Your task to perform on an android device: open app "Pinterest" (install if not already installed) Image 0: 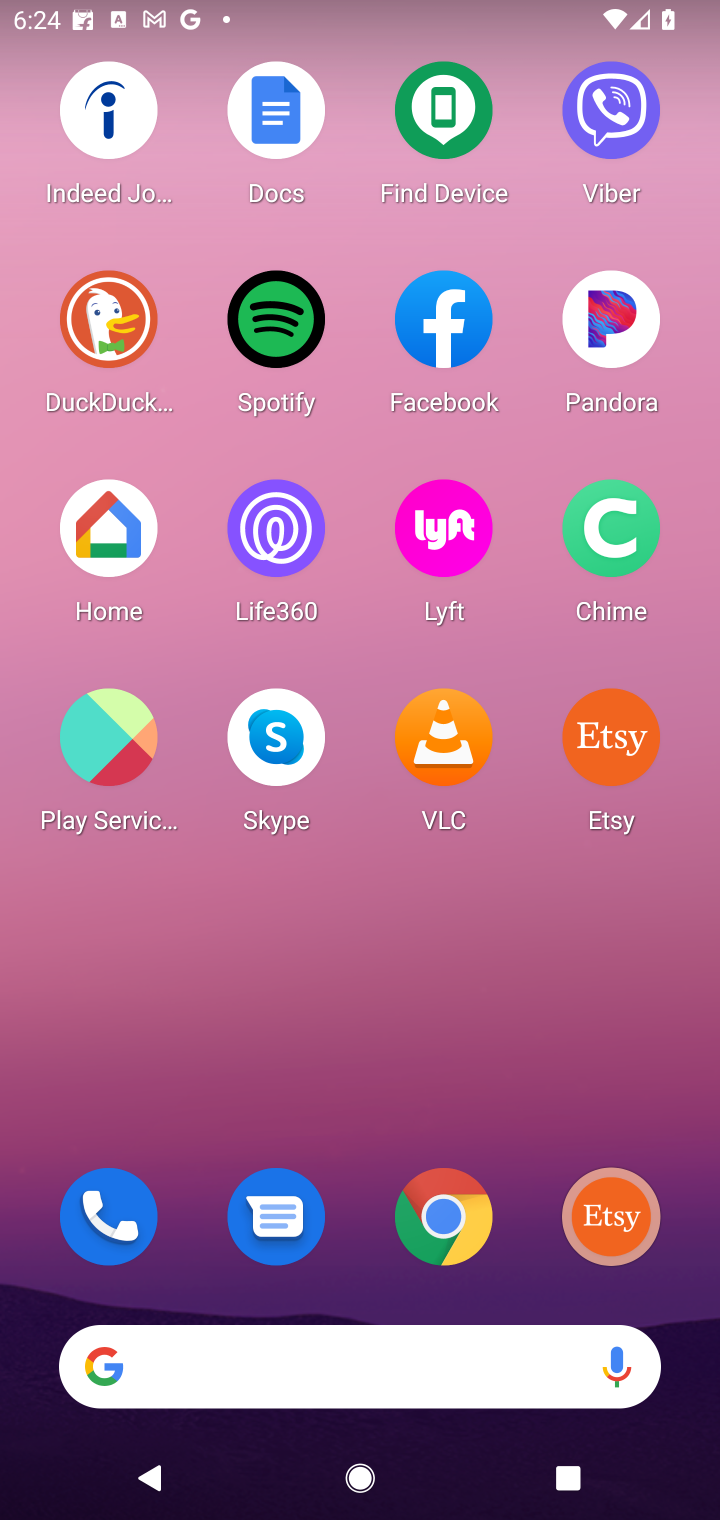
Step 0: drag from (314, 1083) to (417, 8)
Your task to perform on an android device: open app "Pinterest" (install if not already installed) Image 1: 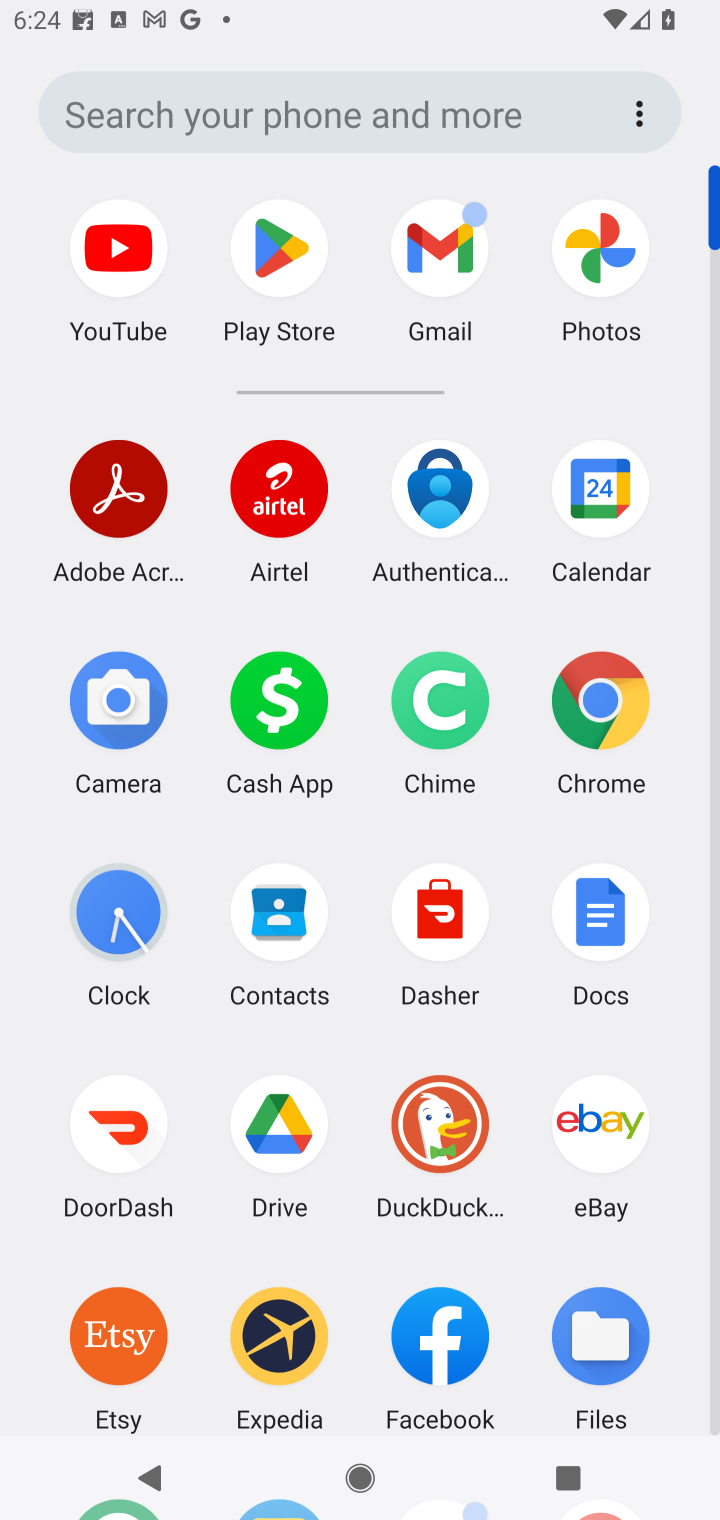
Step 1: click (289, 262)
Your task to perform on an android device: open app "Pinterest" (install if not already installed) Image 2: 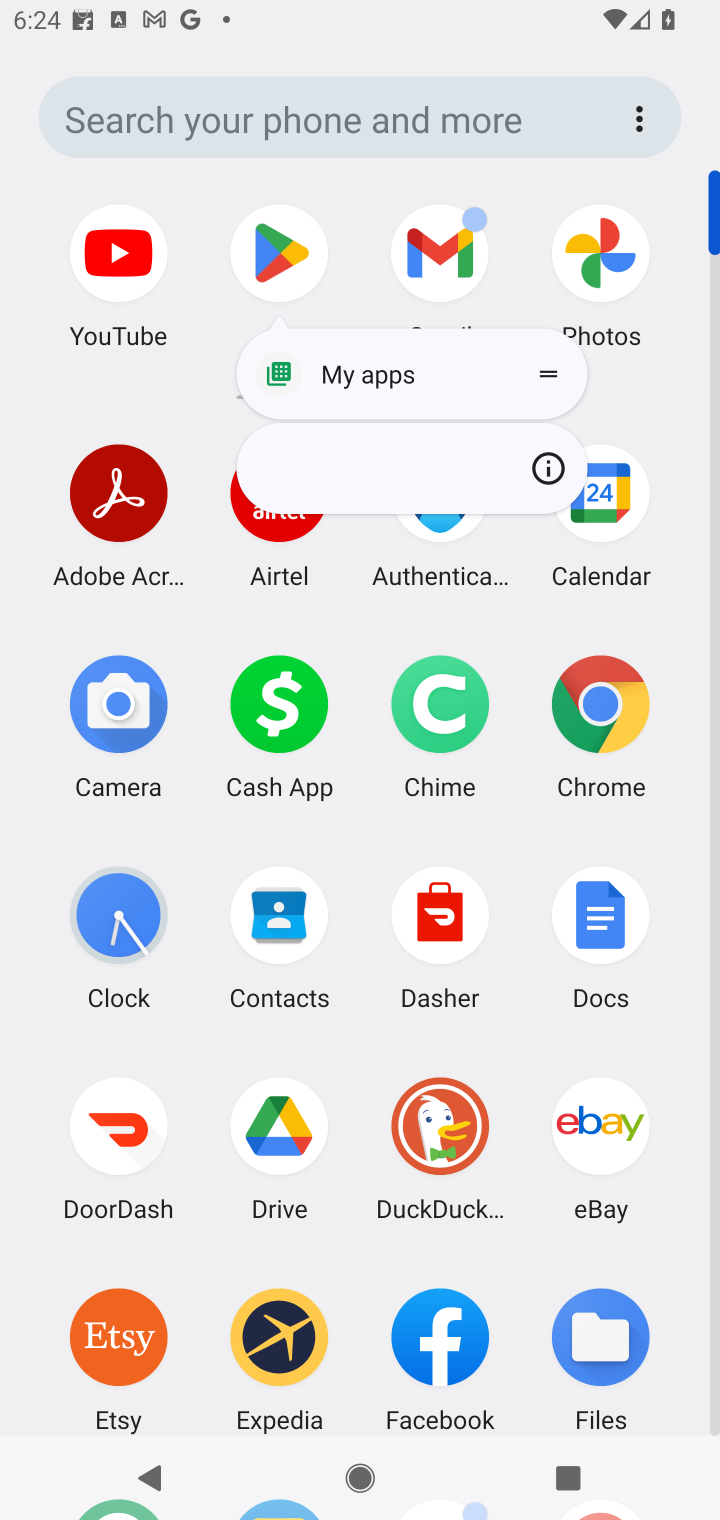
Step 2: click (272, 257)
Your task to perform on an android device: open app "Pinterest" (install if not already installed) Image 3: 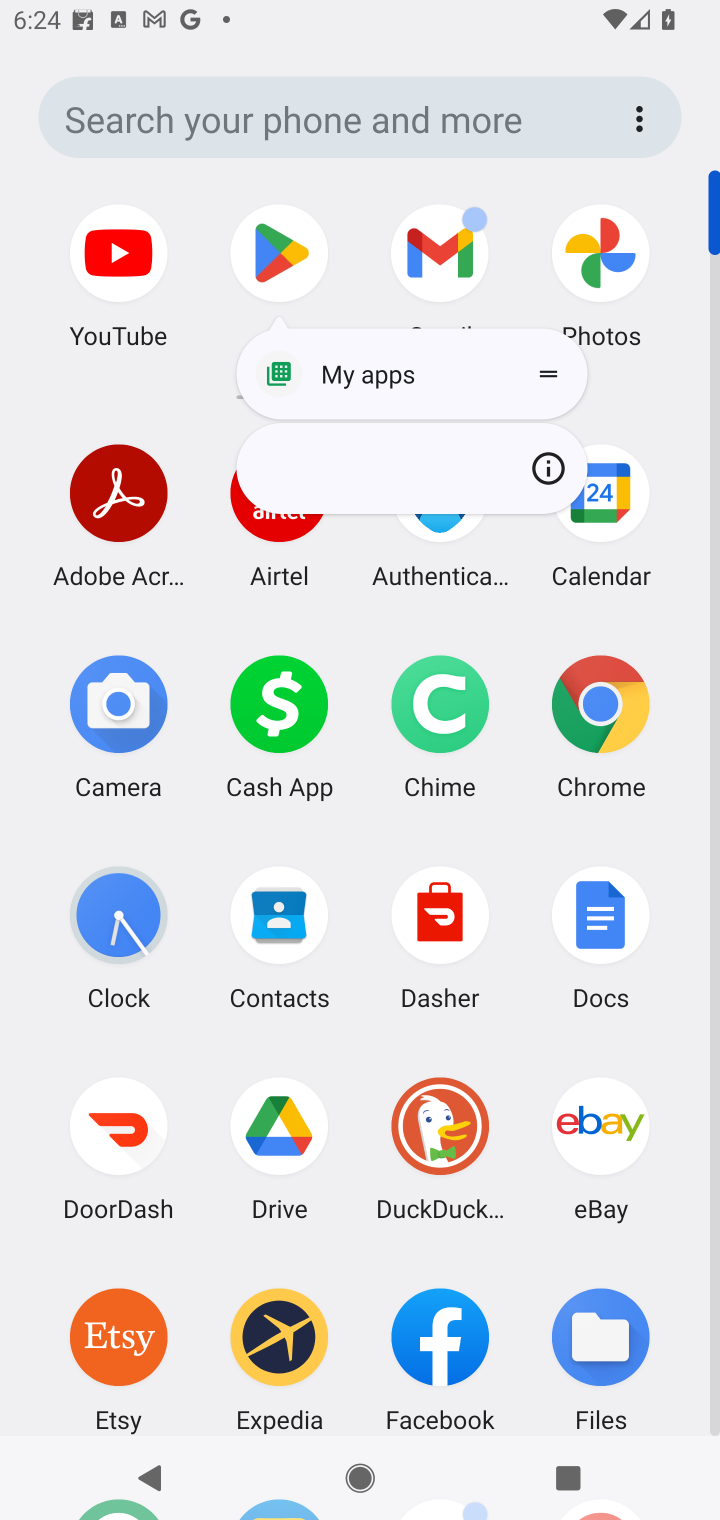
Step 3: click (297, 244)
Your task to perform on an android device: open app "Pinterest" (install if not already installed) Image 4: 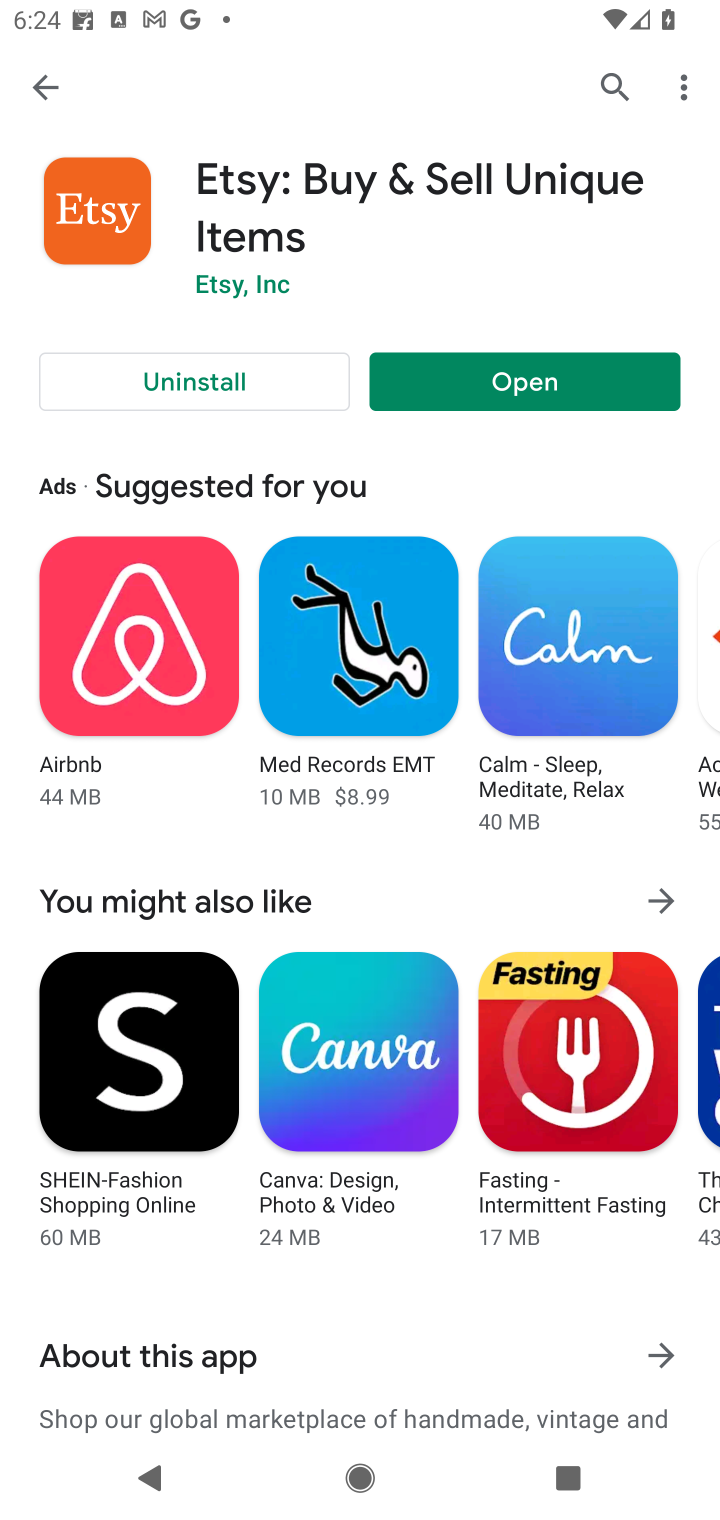
Step 4: click (593, 85)
Your task to perform on an android device: open app "Pinterest" (install if not already installed) Image 5: 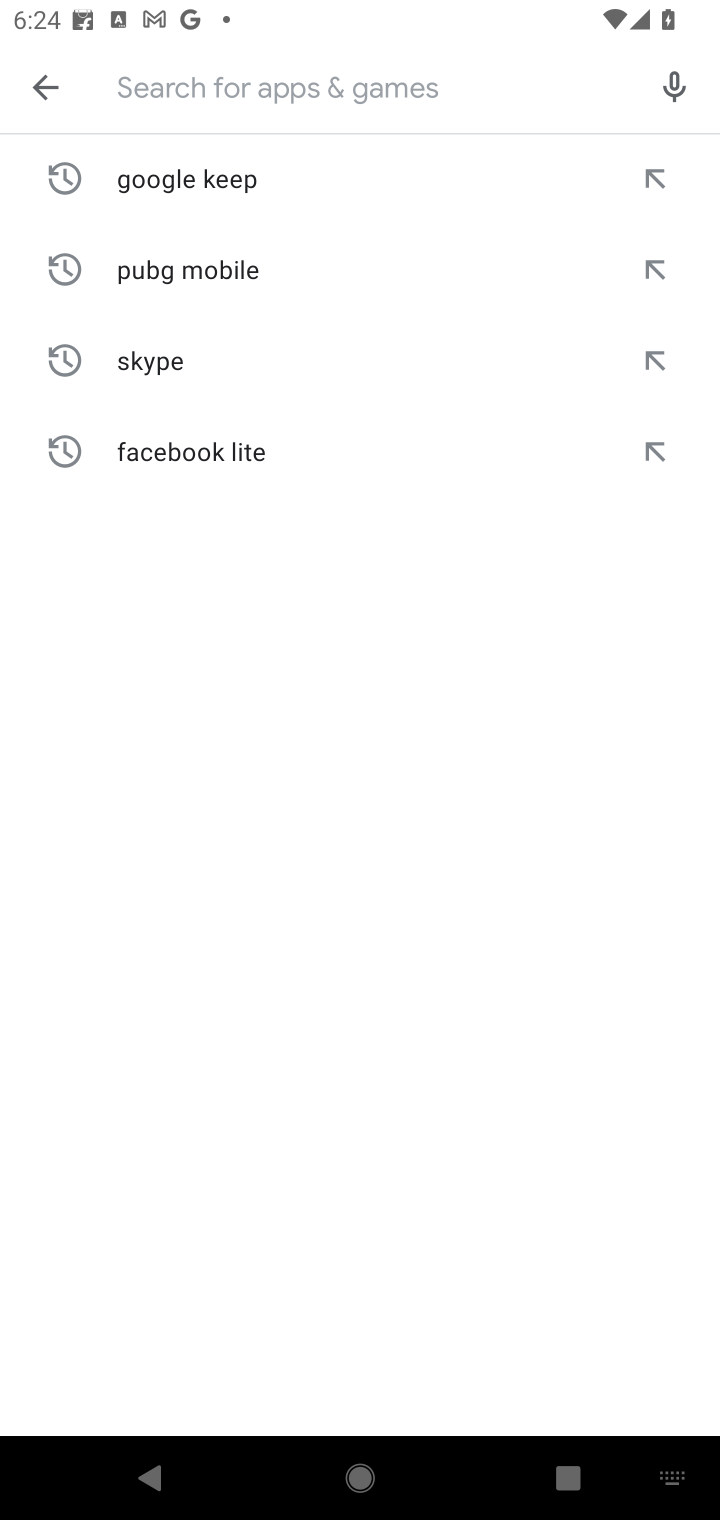
Step 5: type "Pinterest"
Your task to perform on an android device: open app "Pinterest" (install if not already installed) Image 6: 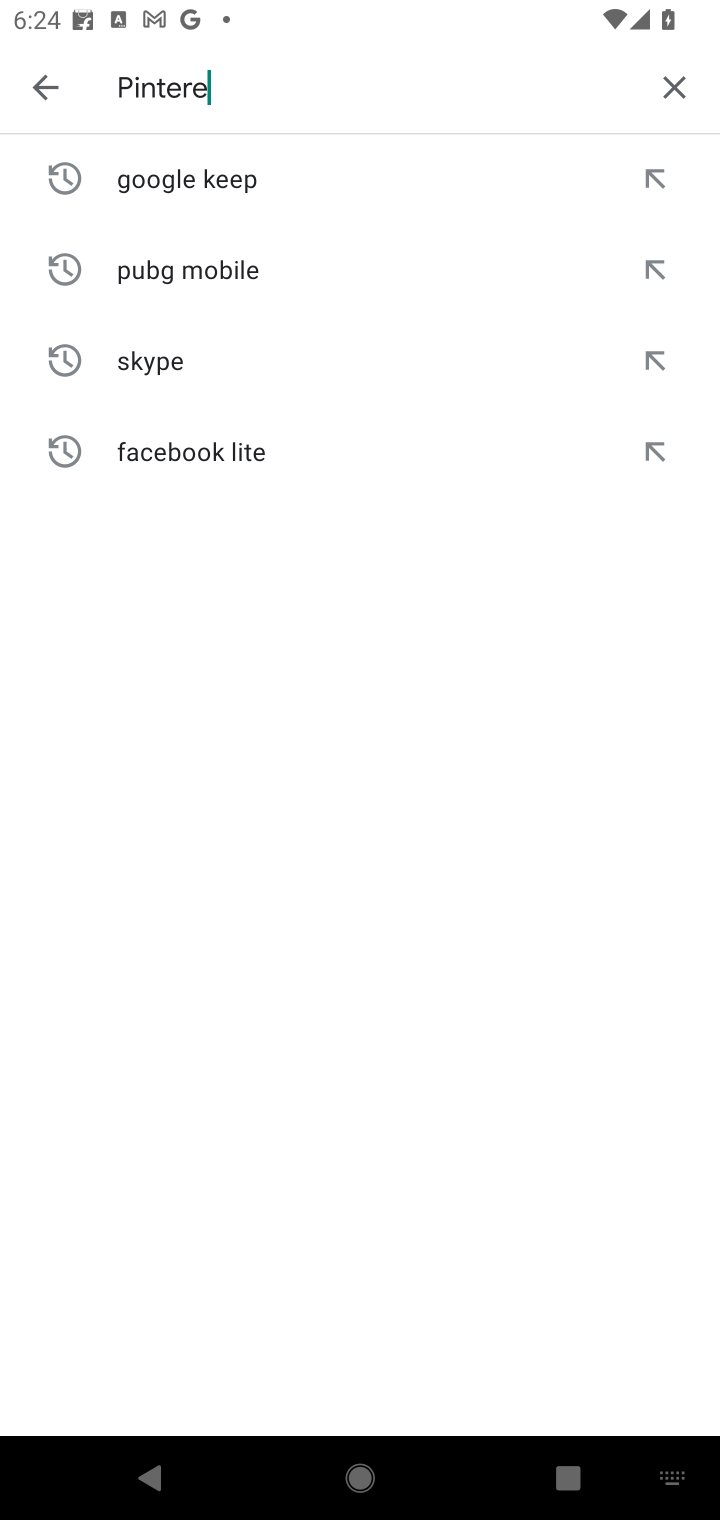
Step 6: type ""
Your task to perform on an android device: open app "Pinterest" (install if not already installed) Image 7: 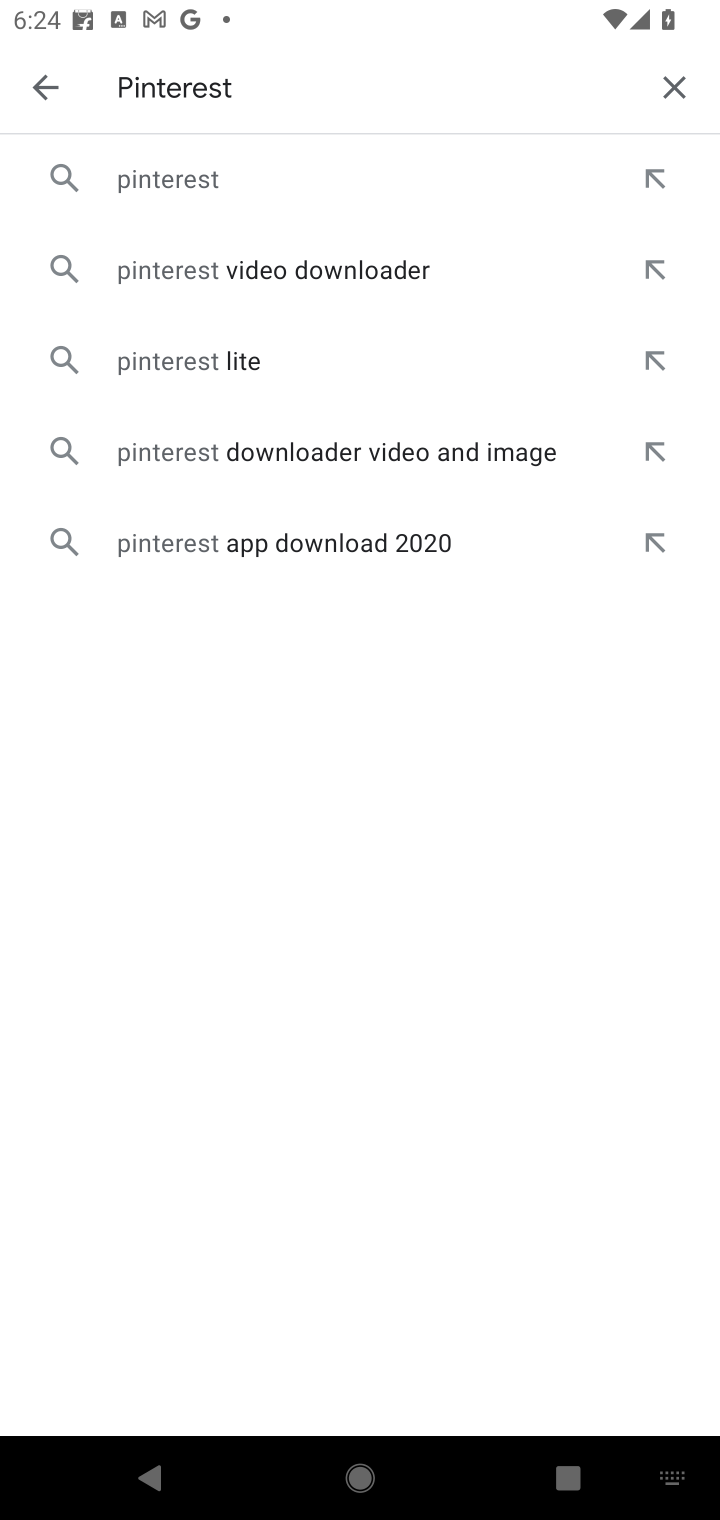
Step 7: click (168, 197)
Your task to perform on an android device: open app "Pinterest" (install if not already installed) Image 8: 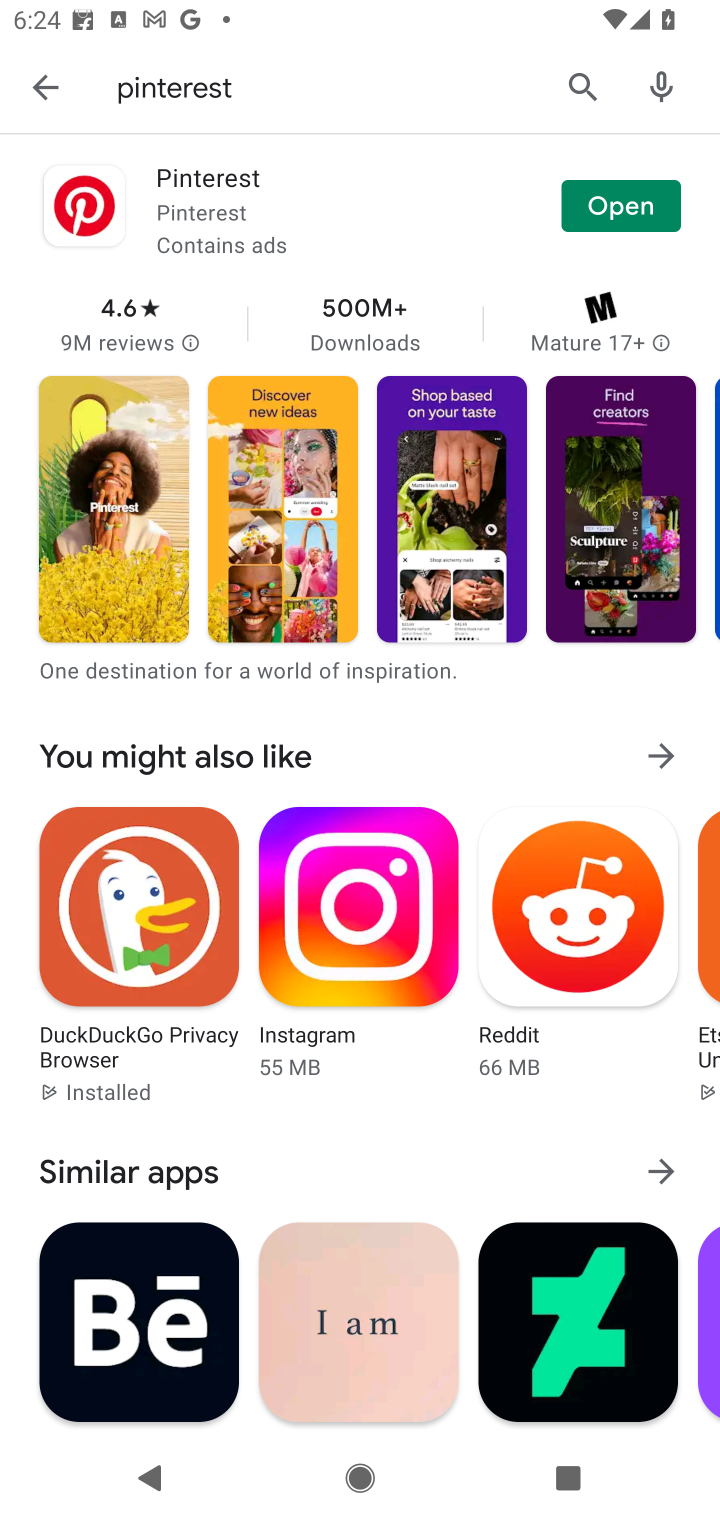
Step 8: click (612, 215)
Your task to perform on an android device: open app "Pinterest" (install if not already installed) Image 9: 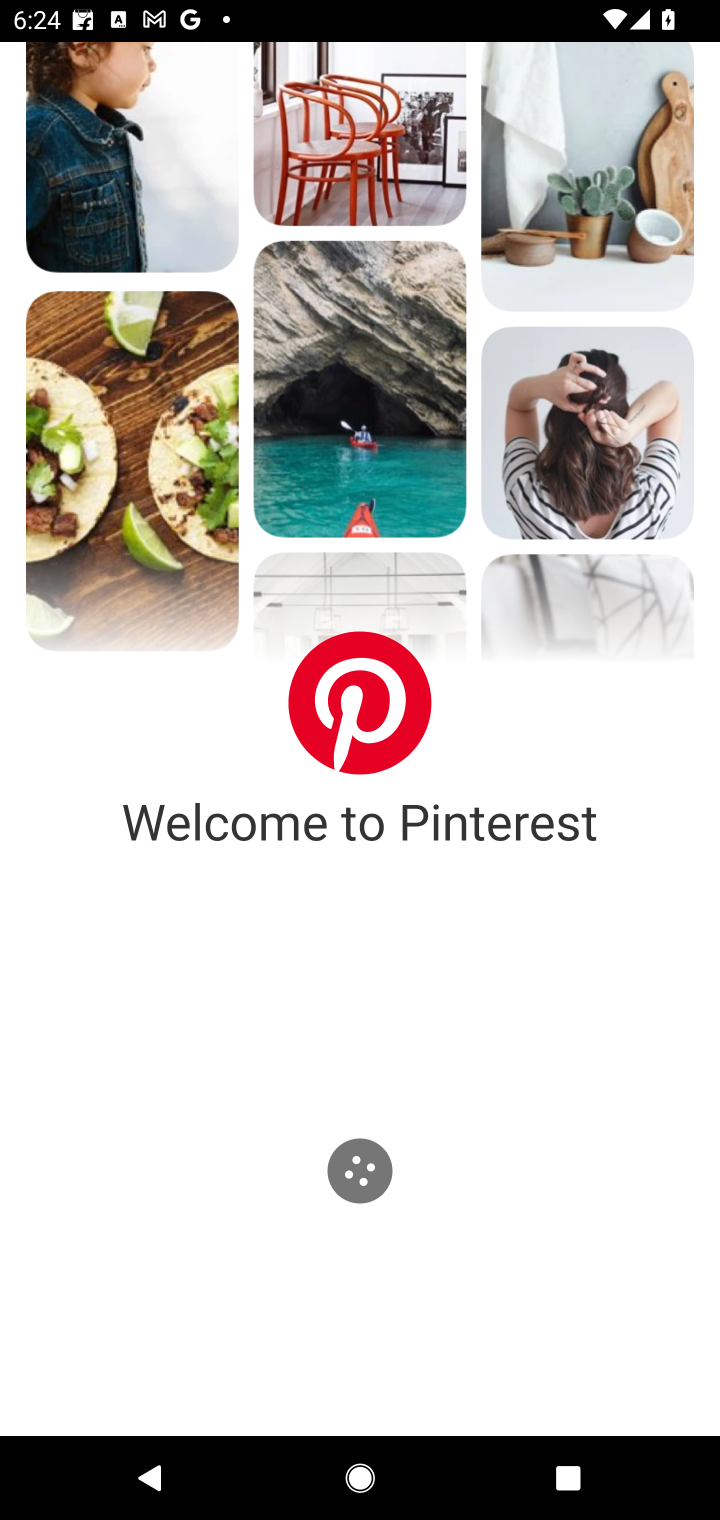
Step 9: task complete